Your task to perform on an android device: Open notification settings Image 0: 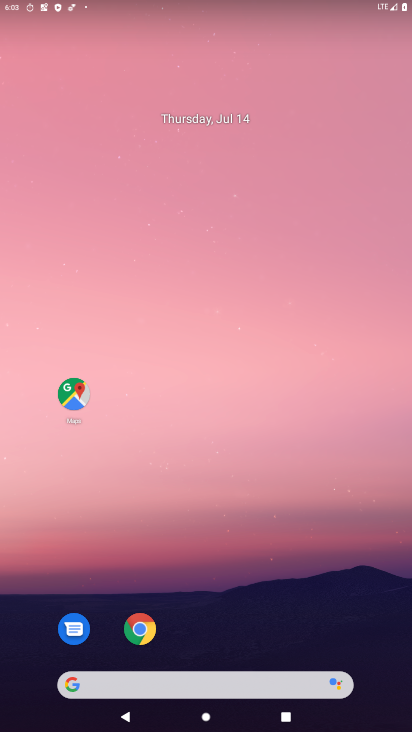
Step 0: drag from (240, 682) to (278, 109)
Your task to perform on an android device: Open notification settings Image 1: 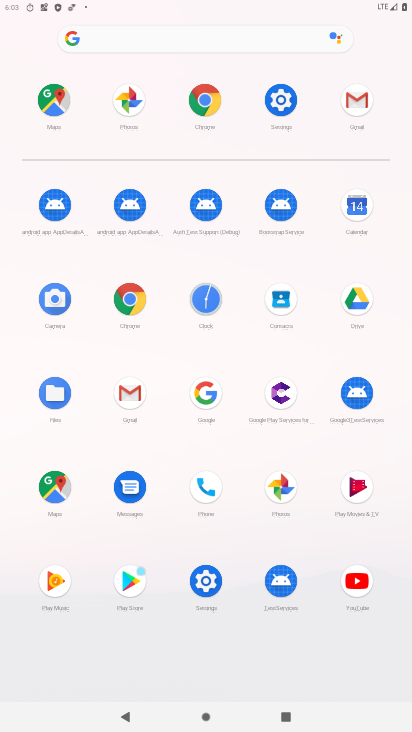
Step 1: click (286, 103)
Your task to perform on an android device: Open notification settings Image 2: 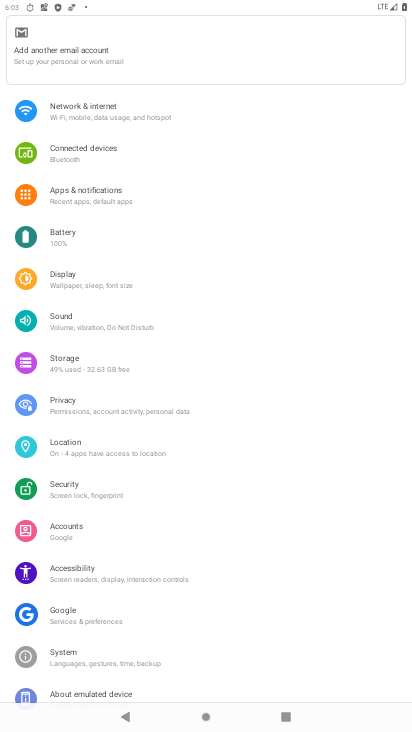
Step 2: click (120, 187)
Your task to perform on an android device: Open notification settings Image 3: 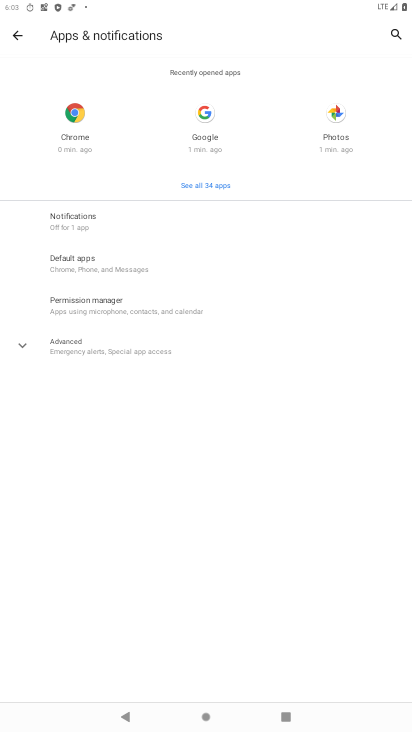
Step 3: task complete